Your task to perform on an android device: View the shopping cart on target.com. Image 0: 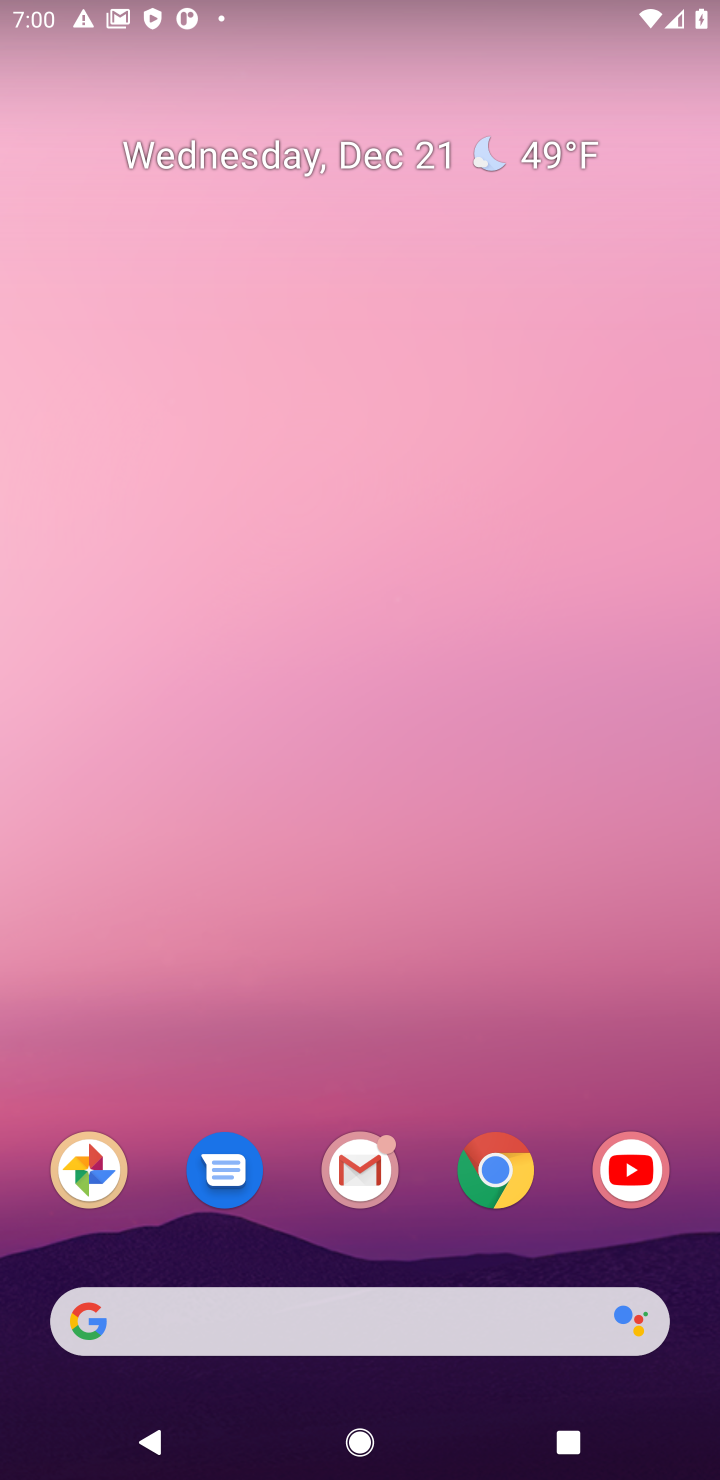
Step 0: click (502, 1181)
Your task to perform on an android device: View the shopping cart on target.com. Image 1: 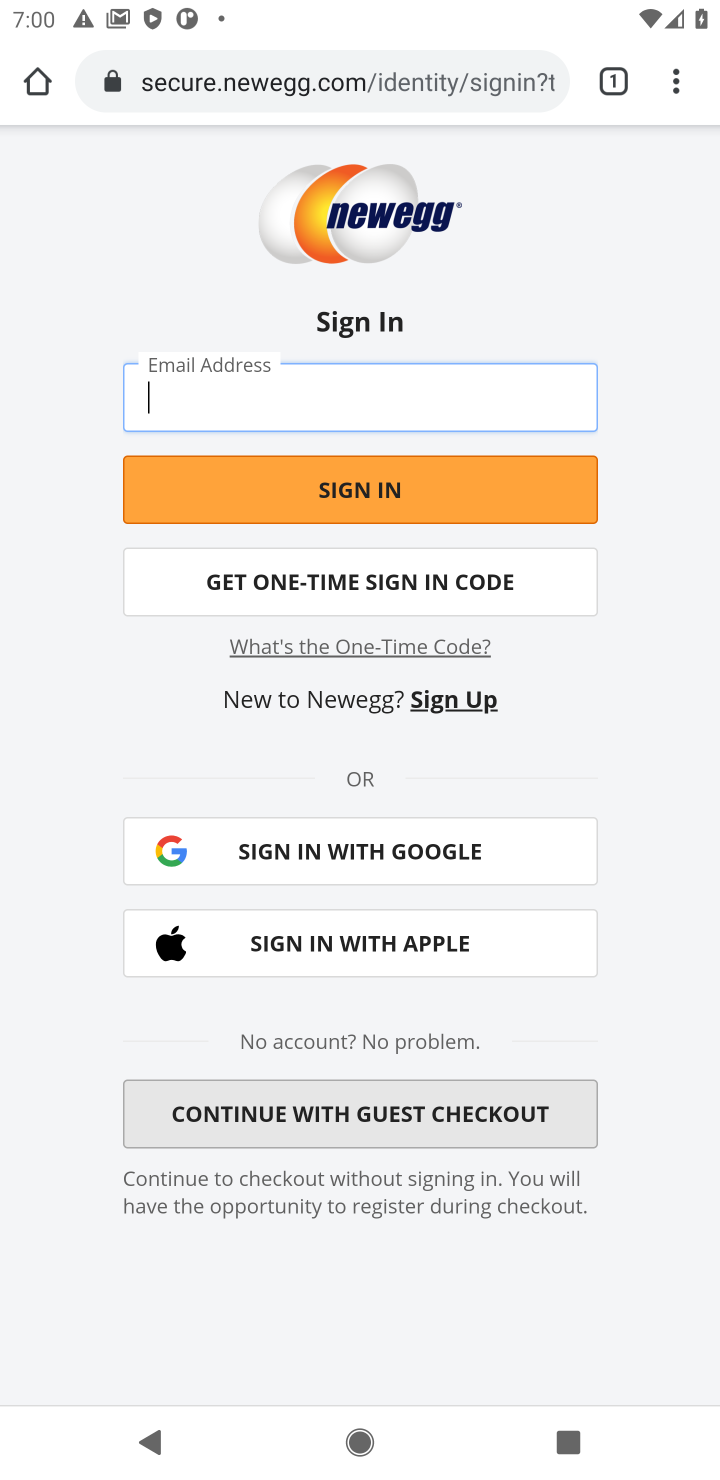
Step 1: click (386, 76)
Your task to perform on an android device: View the shopping cart on target.com. Image 2: 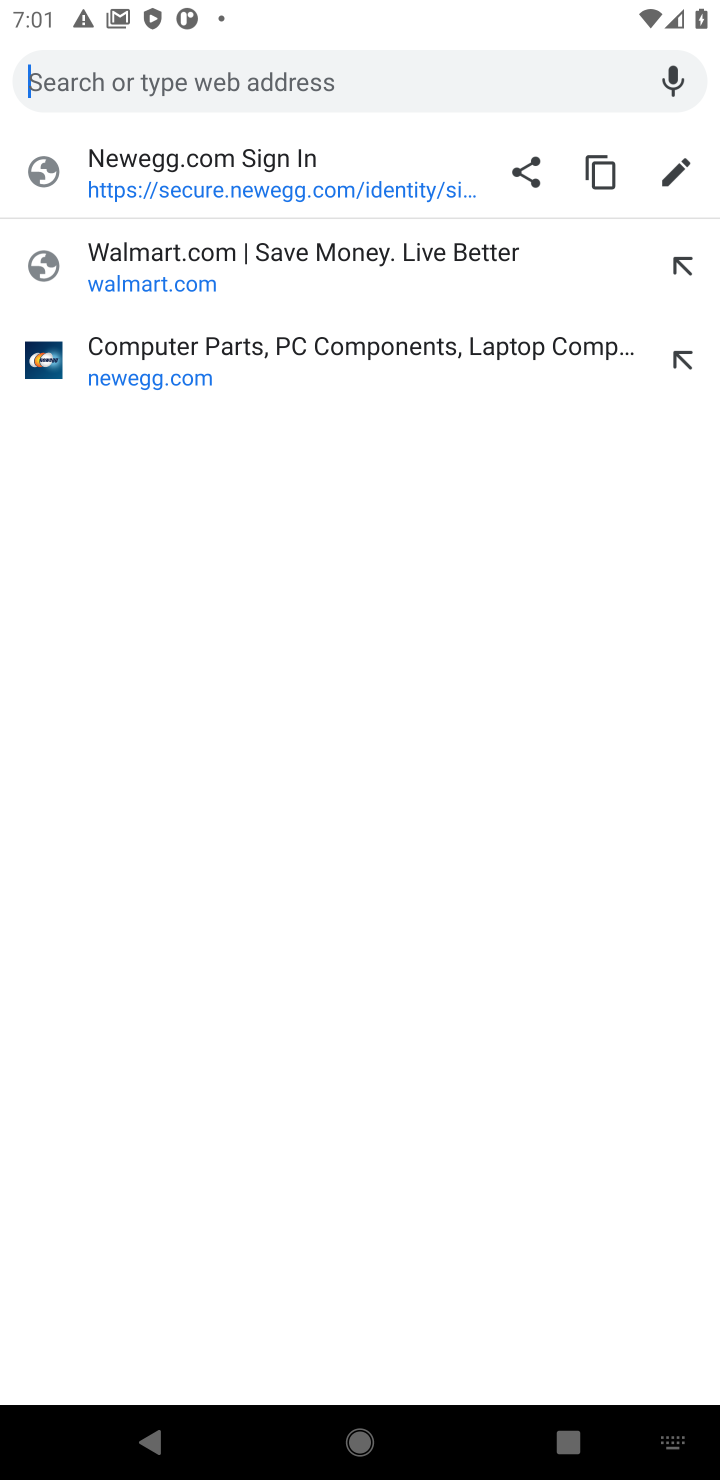
Step 2: type "target"
Your task to perform on an android device: View the shopping cart on target.com. Image 3: 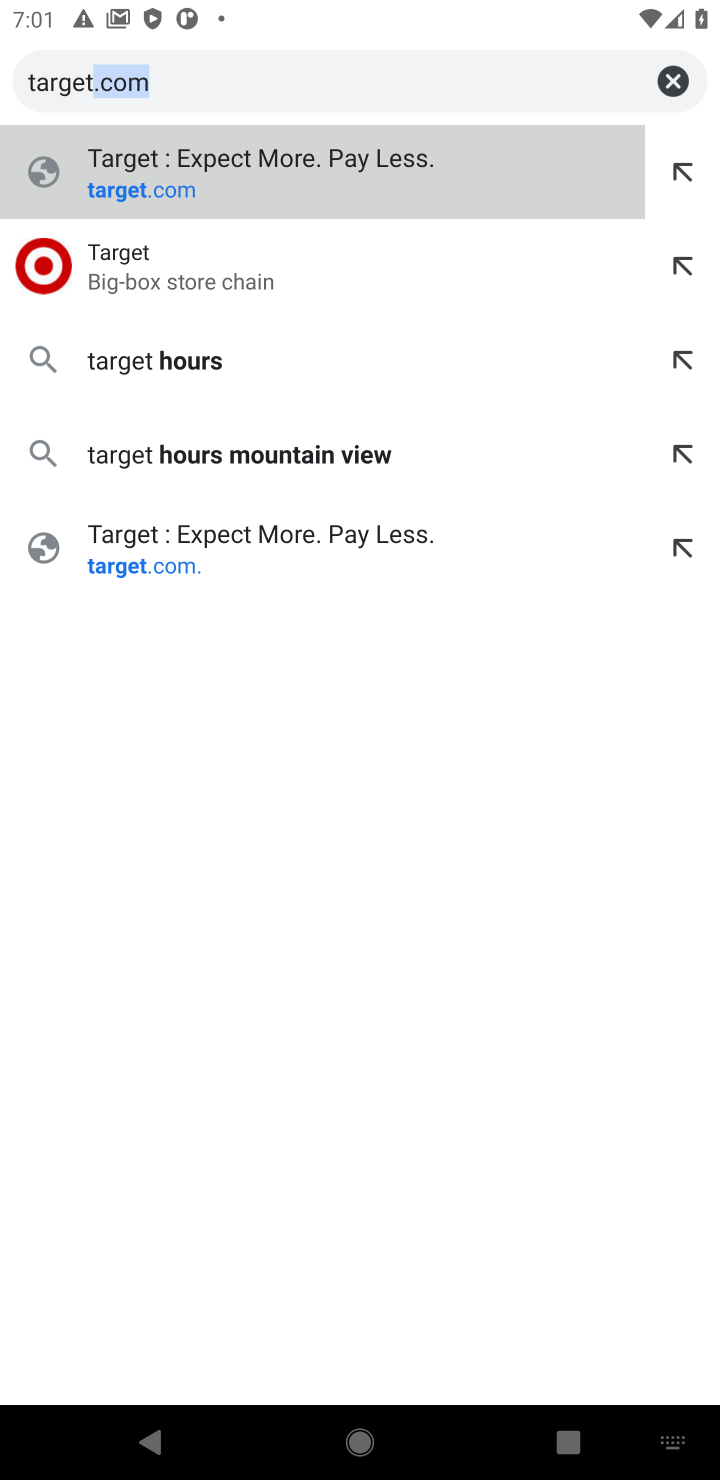
Step 3: click (337, 160)
Your task to perform on an android device: View the shopping cart on target.com. Image 4: 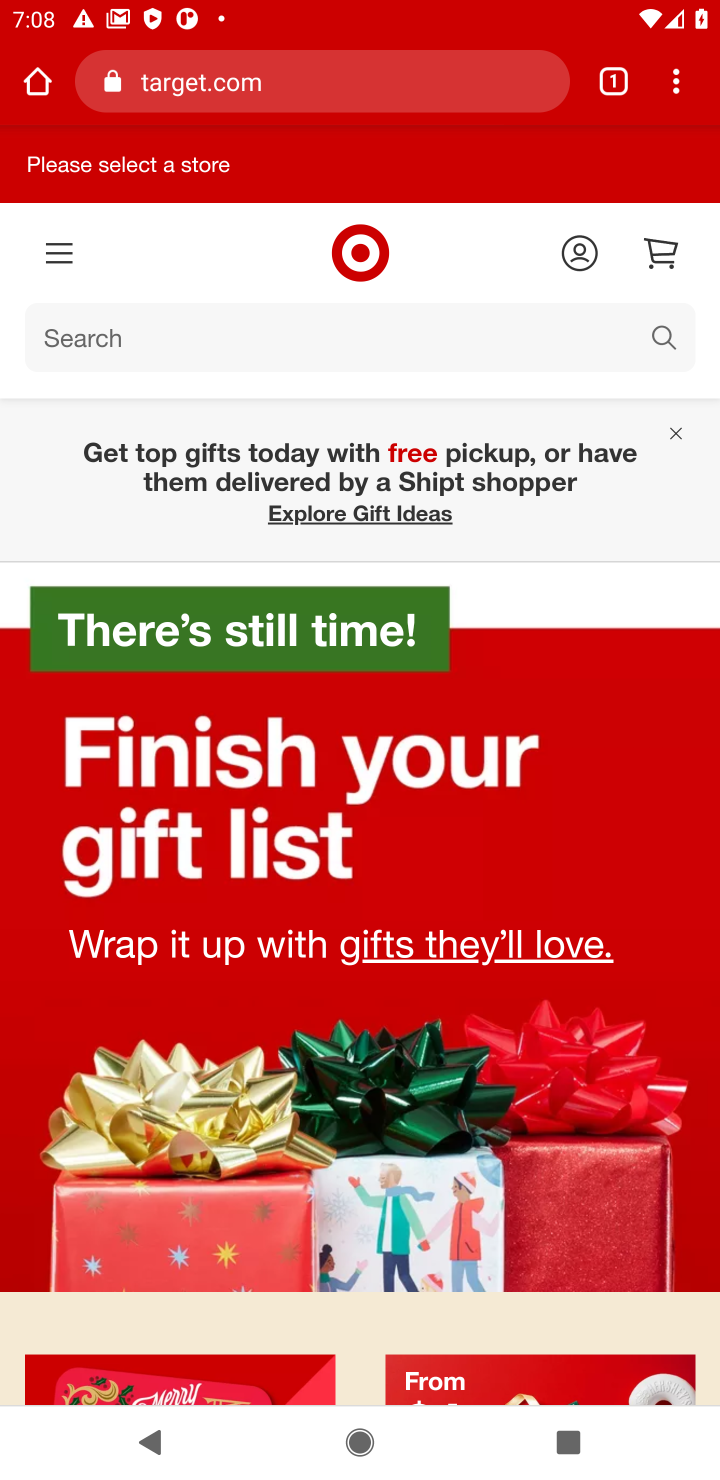
Step 4: task complete